Your task to perform on an android device: Open Google Chrome and open the bookmarks view Image 0: 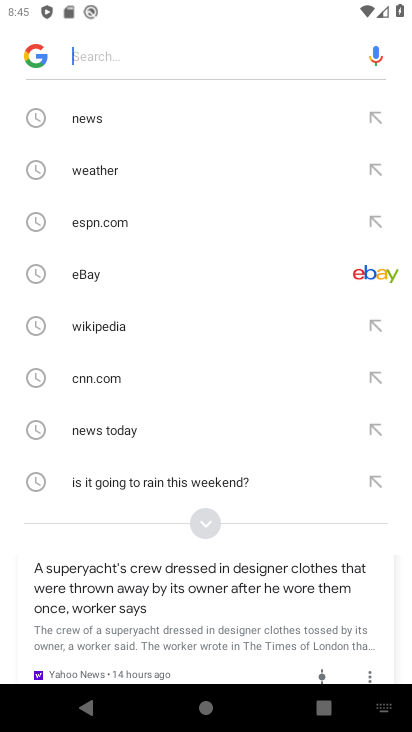
Step 0: press home button
Your task to perform on an android device: Open Google Chrome and open the bookmarks view Image 1: 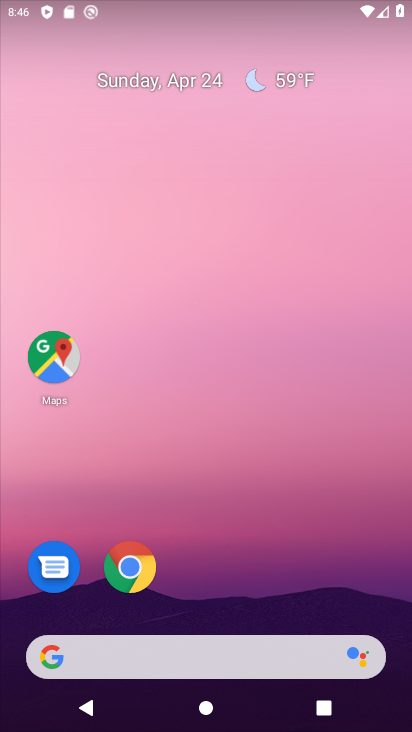
Step 1: drag from (369, 527) to (313, 366)
Your task to perform on an android device: Open Google Chrome and open the bookmarks view Image 2: 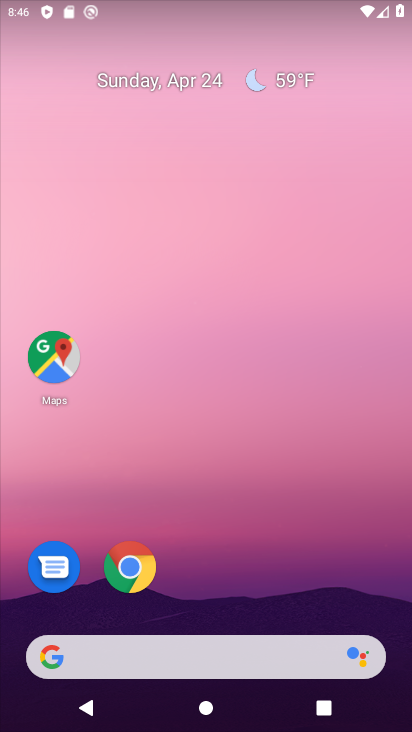
Step 2: click (115, 571)
Your task to perform on an android device: Open Google Chrome and open the bookmarks view Image 3: 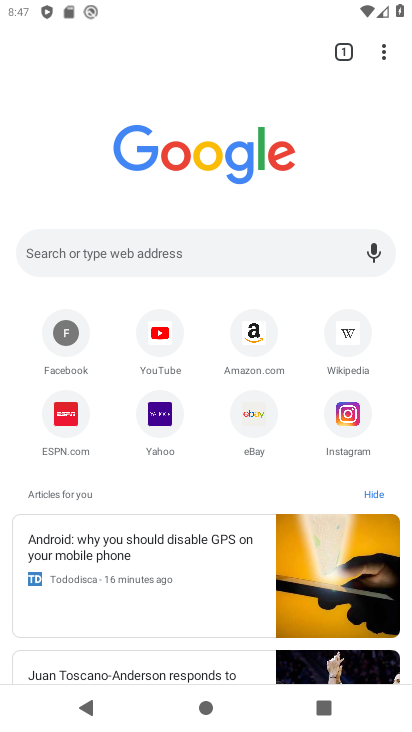
Step 3: click (376, 45)
Your task to perform on an android device: Open Google Chrome and open the bookmarks view Image 4: 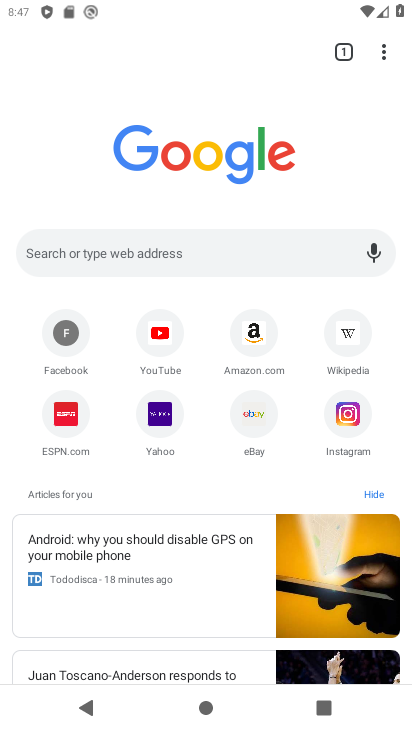
Step 4: click (381, 47)
Your task to perform on an android device: Open Google Chrome and open the bookmarks view Image 5: 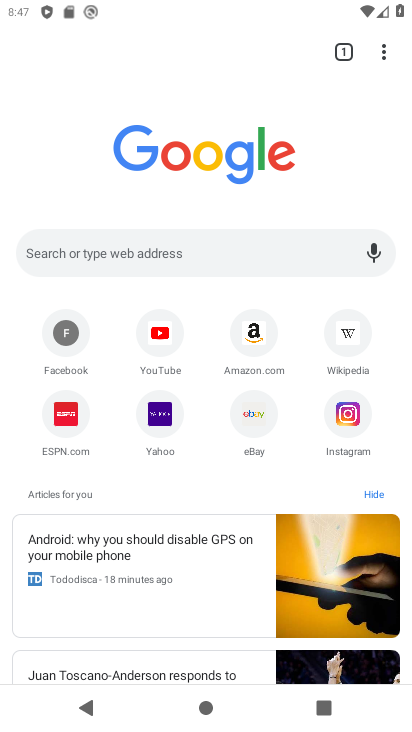
Step 5: click (380, 44)
Your task to perform on an android device: Open Google Chrome and open the bookmarks view Image 6: 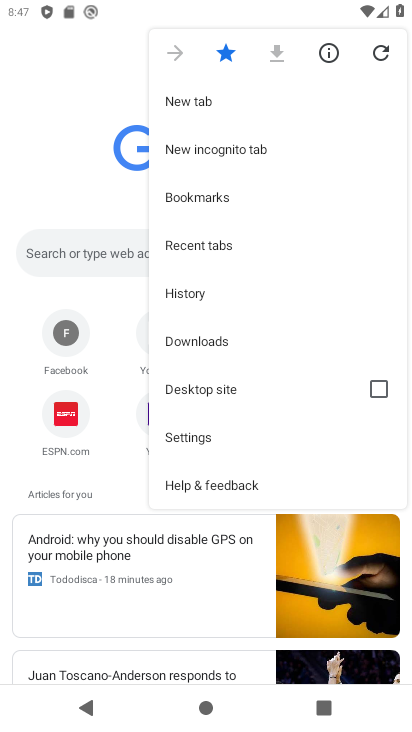
Step 6: click (195, 191)
Your task to perform on an android device: Open Google Chrome and open the bookmarks view Image 7: 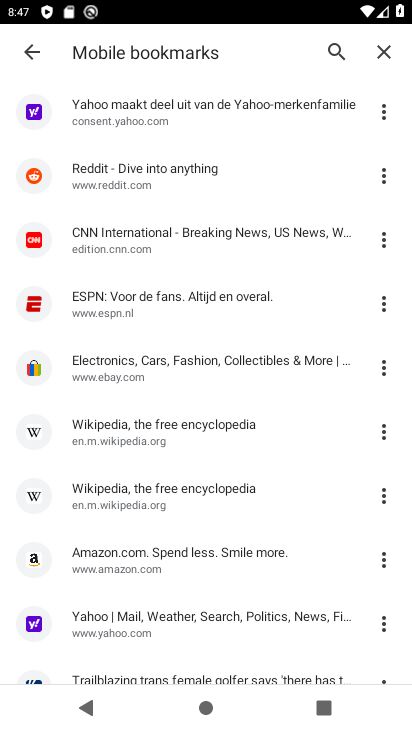
Step 7: click (141, 362)
Your task to perform on an android device: Open Google Chrome and open the bookmarks view Image 8: 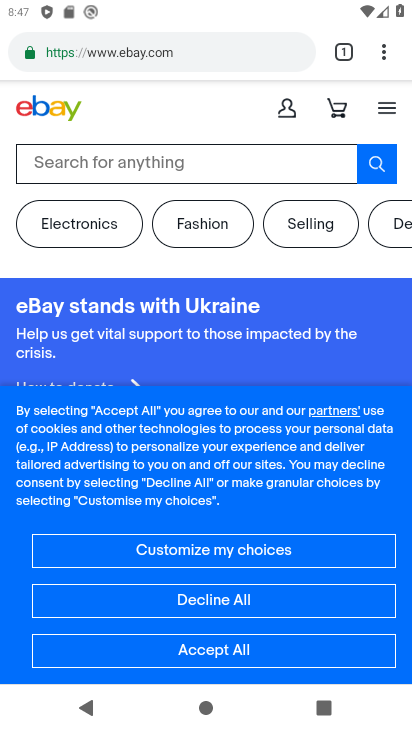
Step 8: task complete